Your task to perform on an android device: change alarm snooze length Image 0: 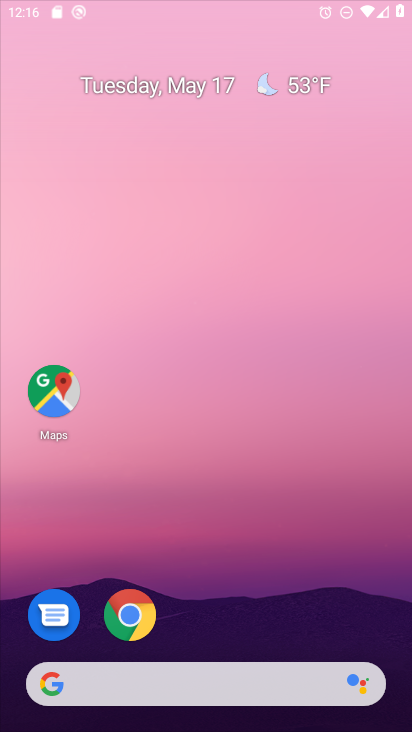
Step 0: click (202, 351)
Your task to perform on an android device: change alarm snooze length Image 1: 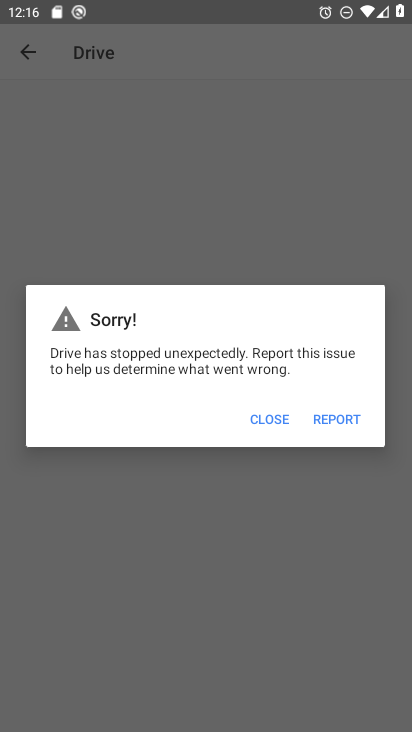
Step 1: press home button
Your task to perform on an android device: change alarm snooze length Image 2: 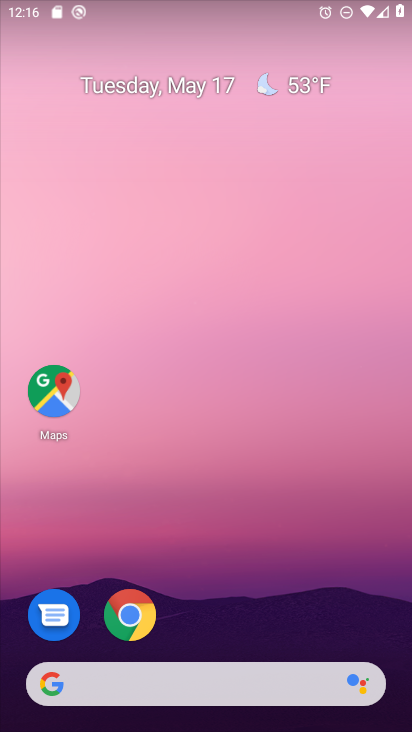
Step 2: drag from (229, 604) to (229, 282)
Your task to perform on an android device: change alarm snooze length Image 3: 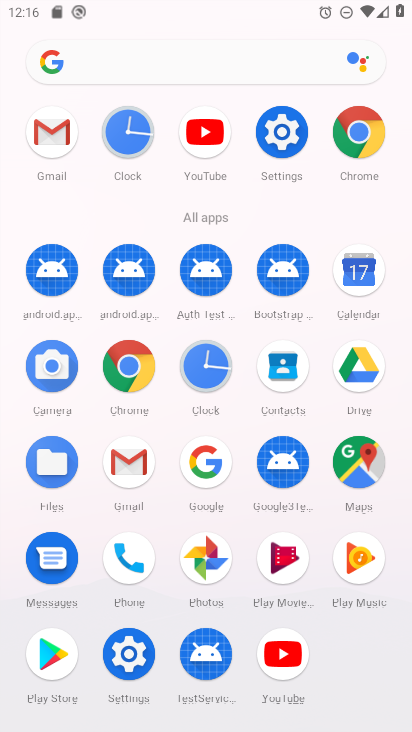
Step 3: click (198, 374)
Your task to perform on an android device: change alarm snooze length Image 4: 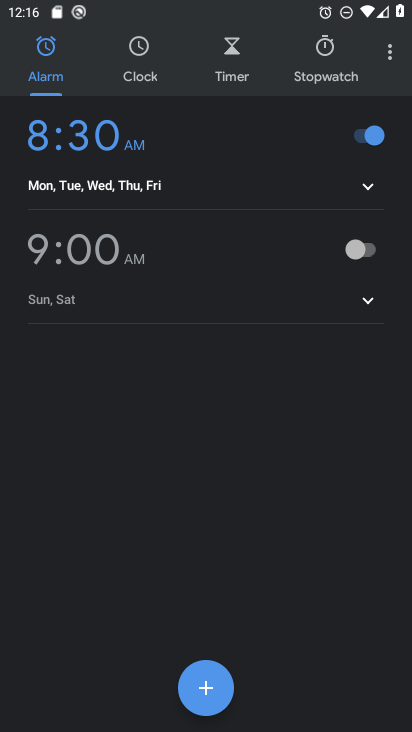
Step 4: click (388, 50)
Your task to perform on an android device: change alarm snooze length Image 5: 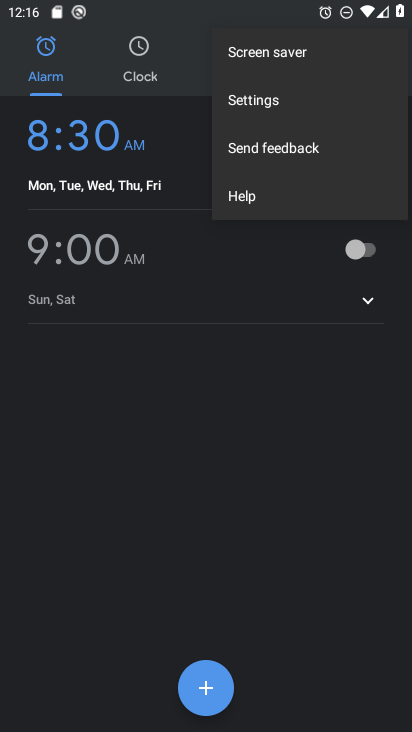
Step 5: click (256, 99)
Your task to perform on an android device: change alarm snooze length Image 6: 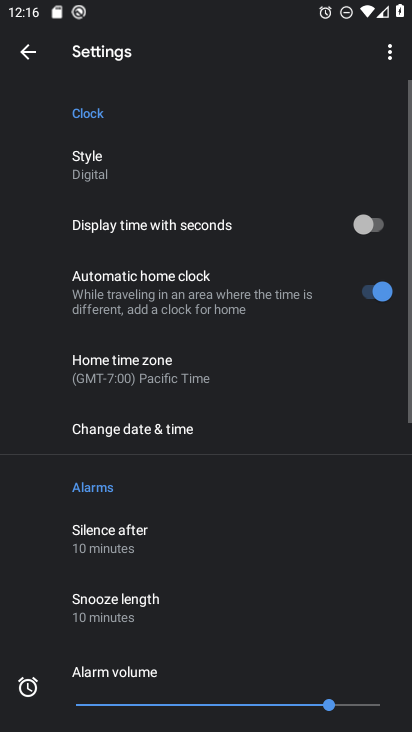
Step 6: click (150, 597)
Your task to perform on an android device: change alarm snooze length Image 7: 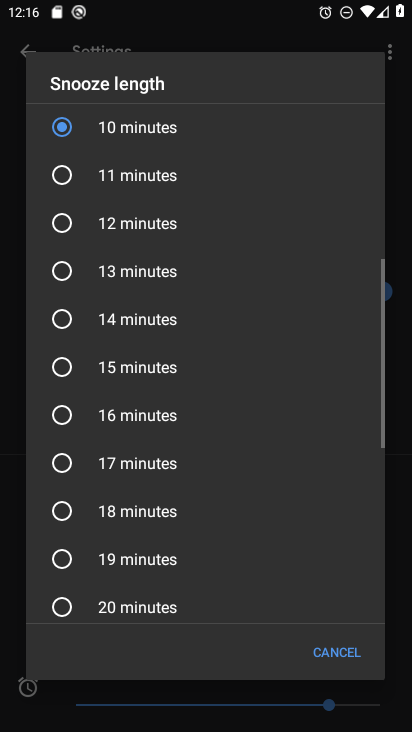
Step 7: click (132, 552)
Your task to perform on an android device: change alarm snooze length Image 8: 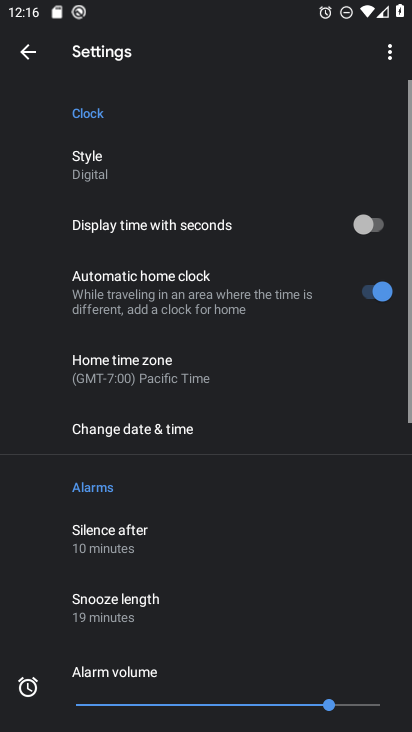
Step 8: task complete